Your task to perform on an android device: turn off location Image 0: 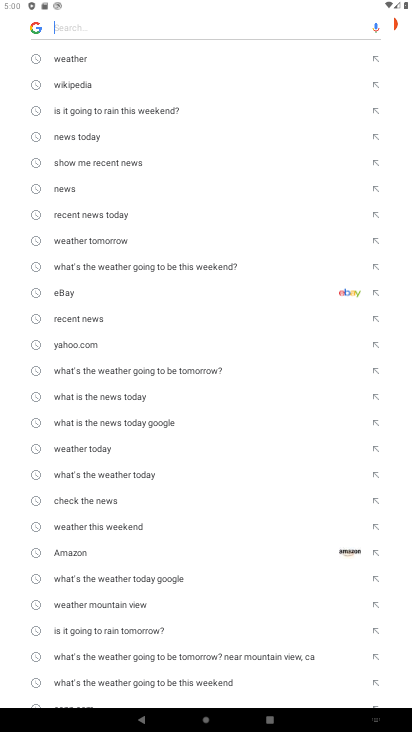
Step 0: press home button
Your task to perform on an android device: turn off location Image 1: 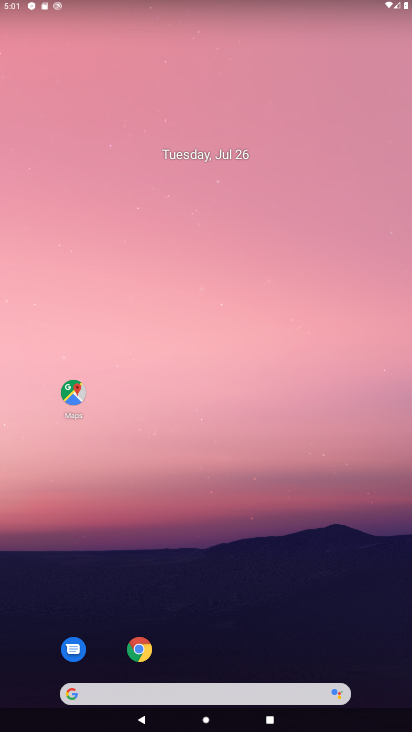
Step 1: drag from (257, 615) to (184, 116)
Your task to perform on an android device: turn off location Image 2: 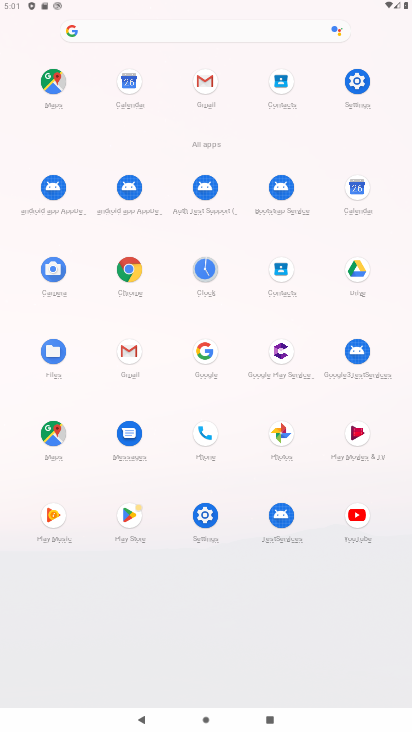
Step 2: click (363, 89)
Your task to perform on an android device: turn off location Image 3: 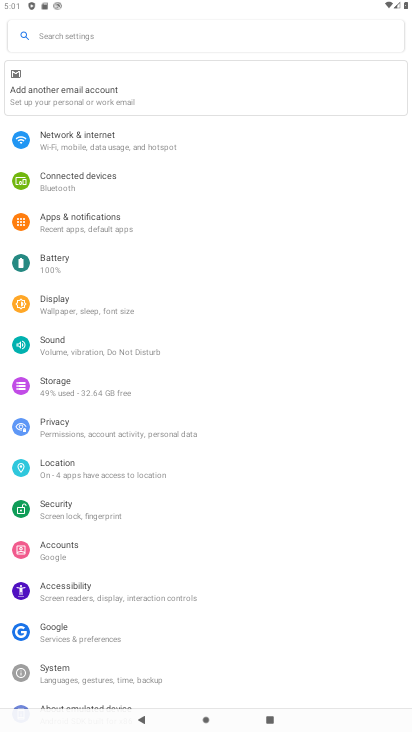
Step 3: click (86, 461)
Your task to perform on an android device: turn off location Image 4: 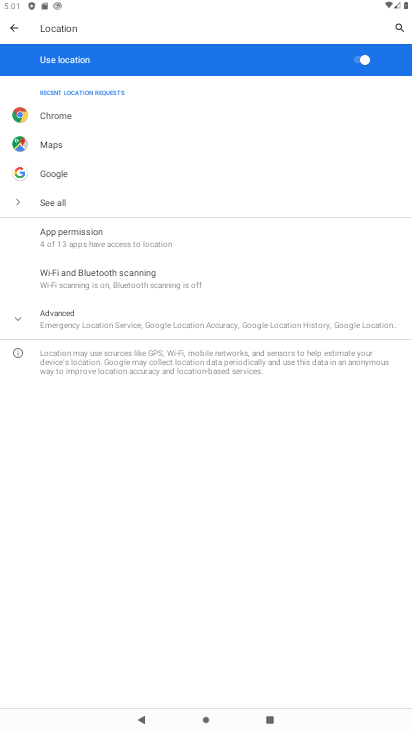
Step 4: task complete